Your task to perform on an android device: visit the assistant section in the google photos Image 0: 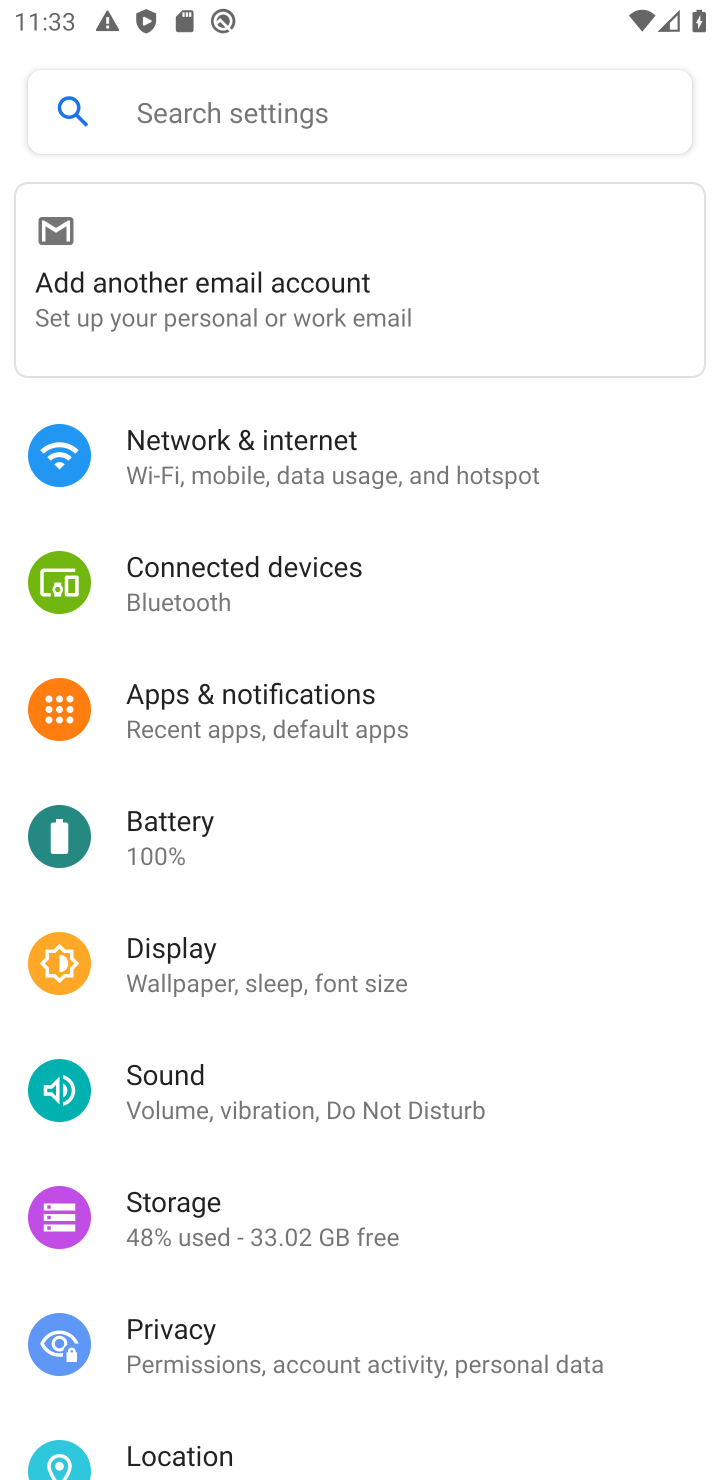
Step 0: press home button
Your task to perform on an android device: visit the assistant section in the google photos Image 1: 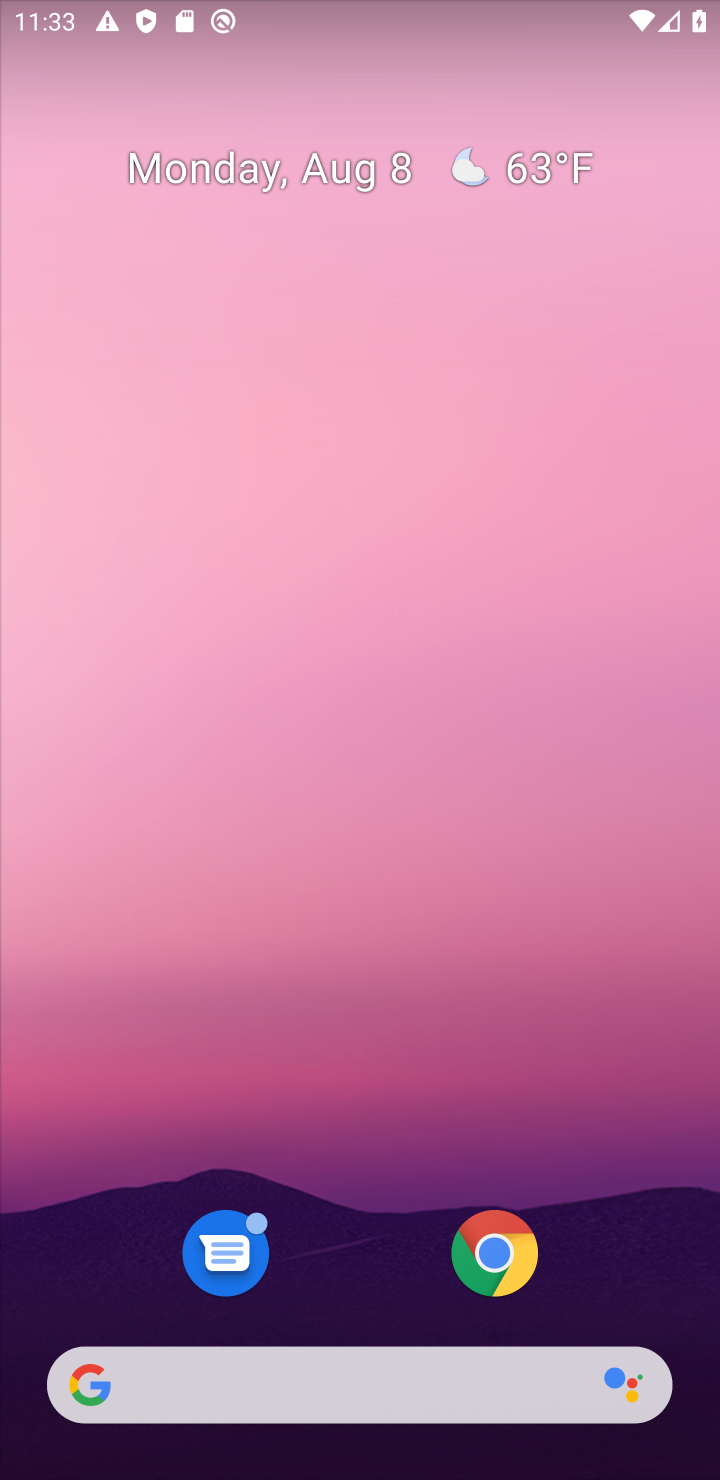
Step 1: drag from (680, 1233) to (356, 0)
Your task to perform on an android device: visit the assistant section in the google photos Image 2: 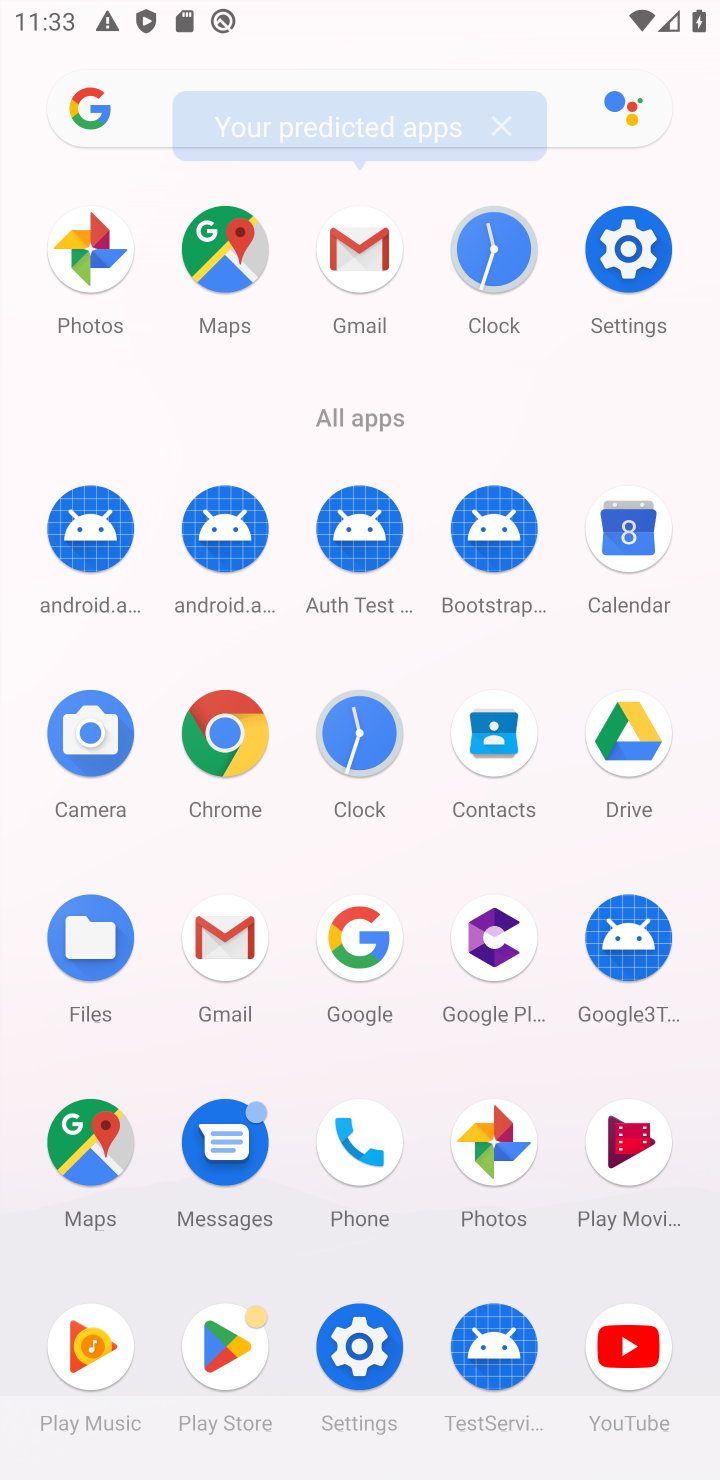
Step 2: click (506, 1201)
Your task to perform on an android device: visit the assistant section in the google photos Image 3: 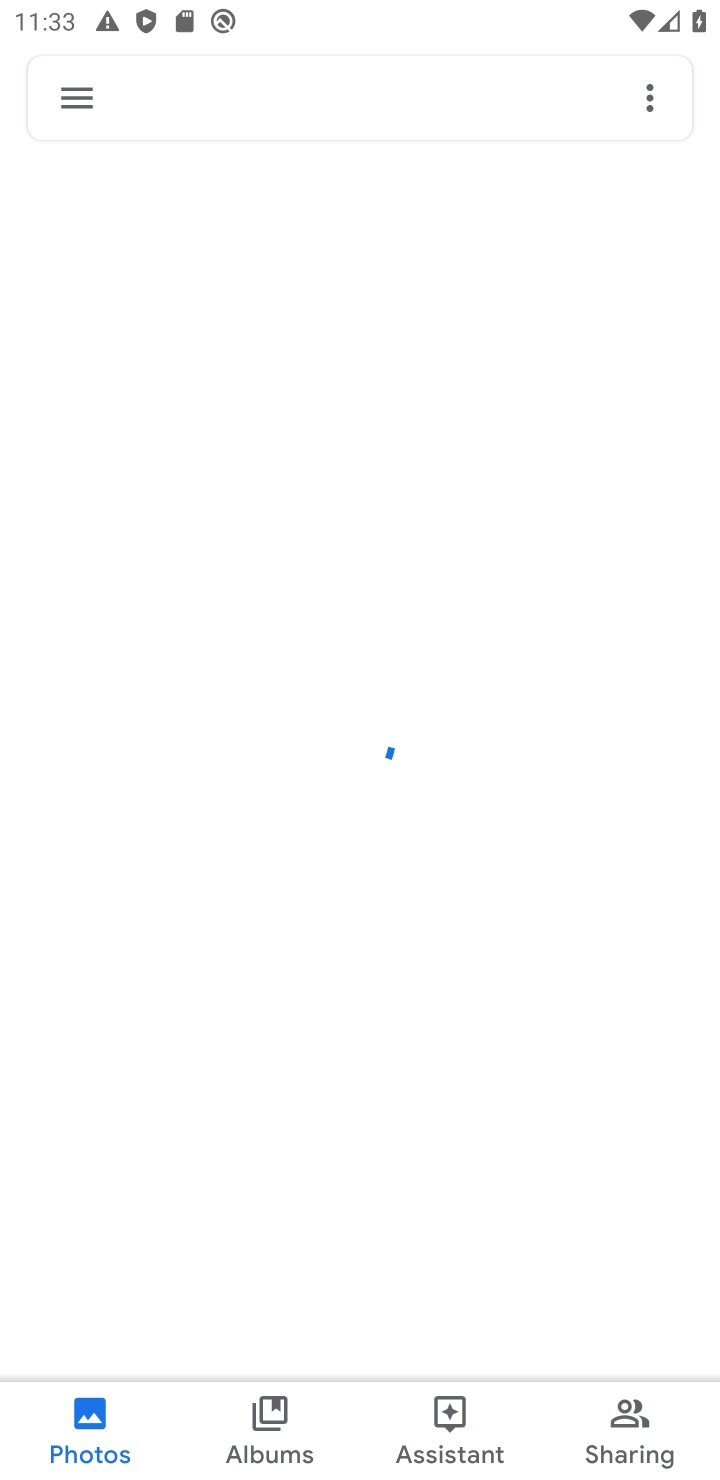
Step 3: click (449, 1430)
Your task to perform on an android device: visit the assistant section in the google photos Image 4: 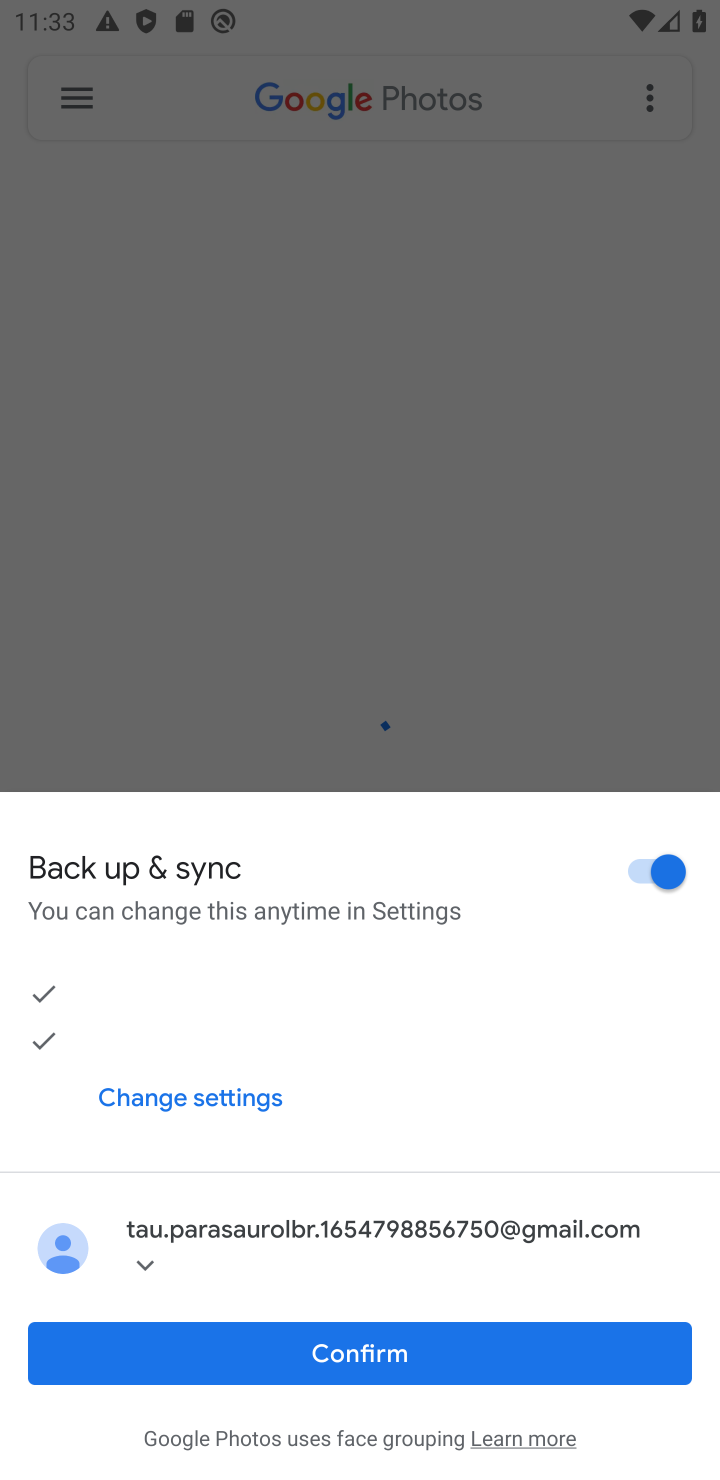
Step 4: click (395, 1332)
Your task to perform on an android device: visit the assistant section in the google photos Image 5: 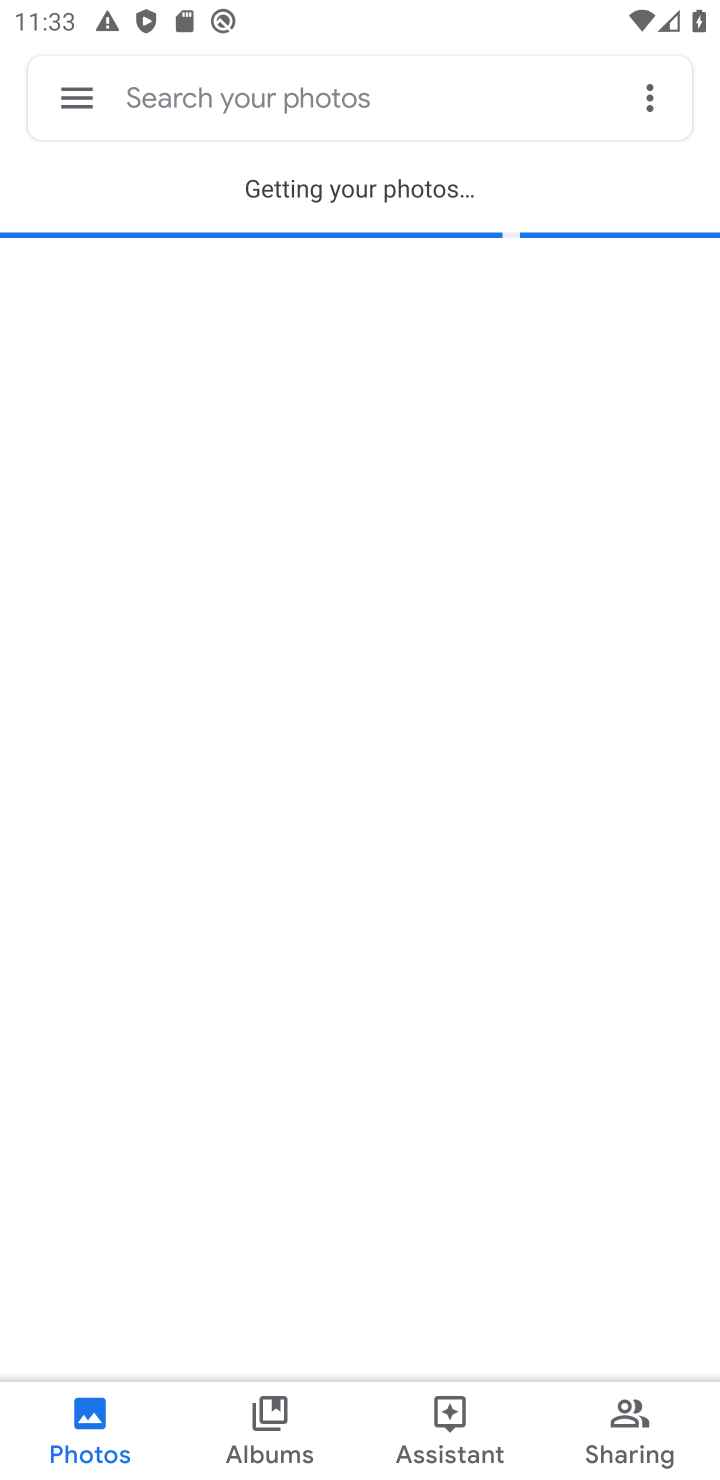
Step 5: click (466, 1416)
Your task to perform on an android device: visit the assistant section in the google photos Image 6: 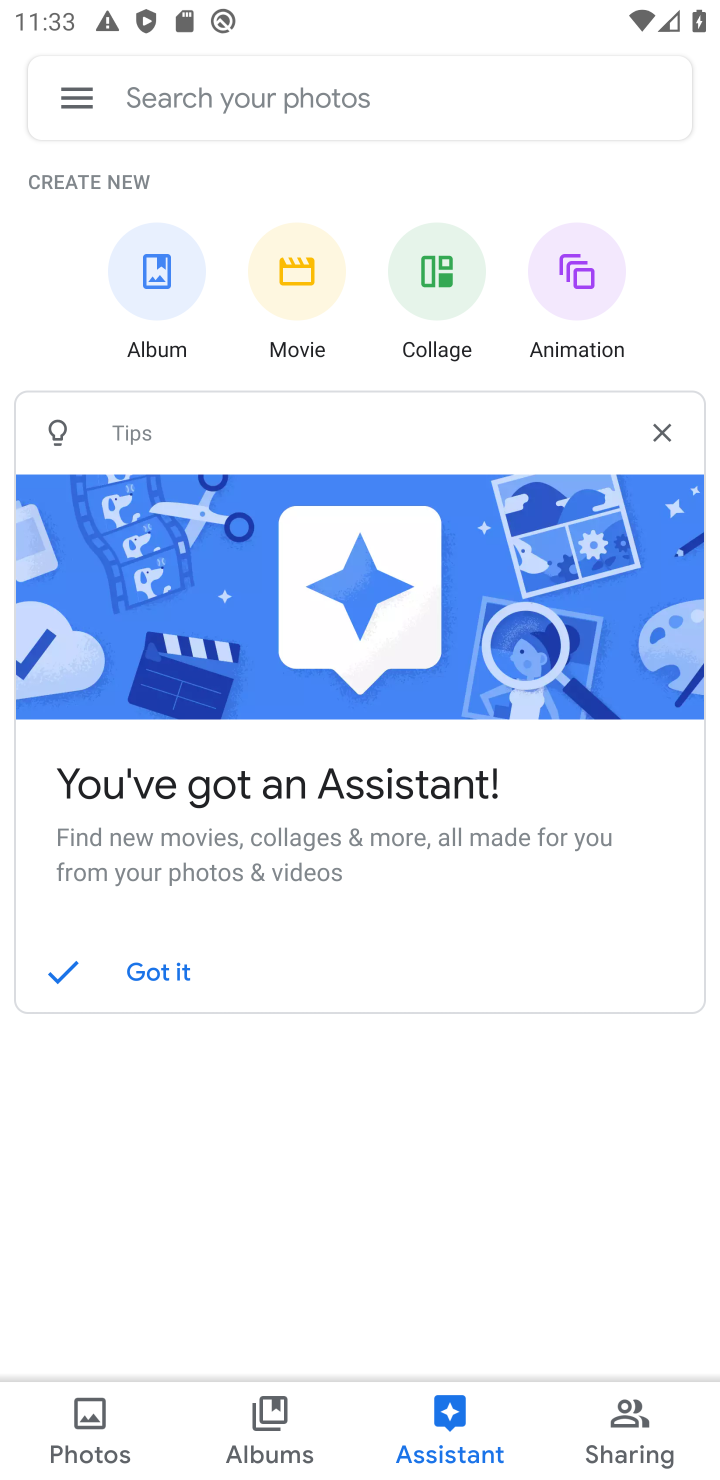
Step 6: task complete